Your task to perform on an android device: turn on data saver in the chrome app Image 0: 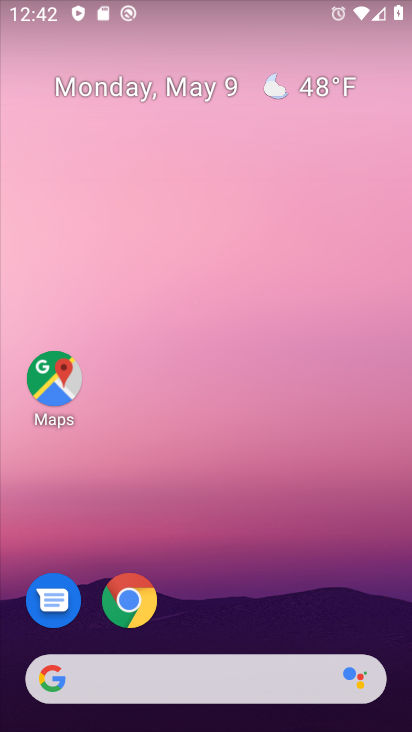
Step 0: click (411, 445)
Your task to perform on an android device: turn on data saver in the chrome app Image 1: 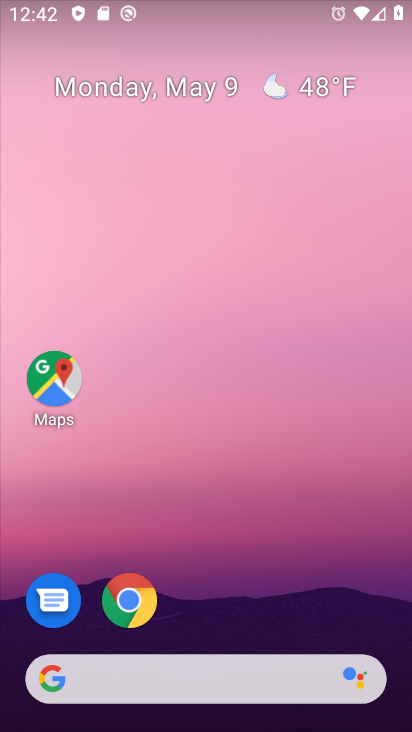
Step 1: click (120, 608)
Your task to perform on an android device: turn on data saver in the chrome app Image 2: 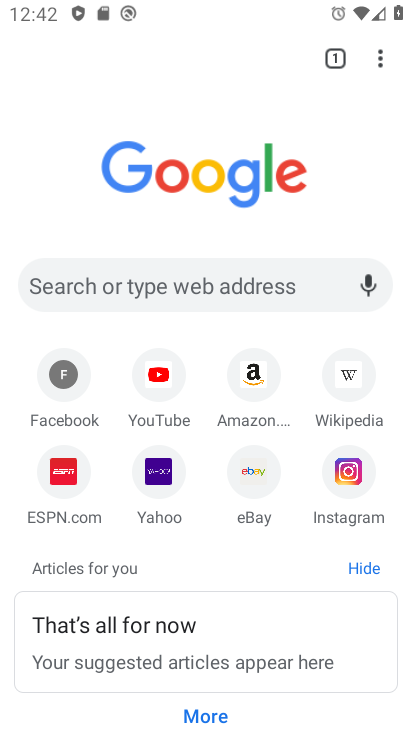
Step 2: click (385, 54)
Your task to perform on an android device: turn on data saver in the chrome app Image 3: 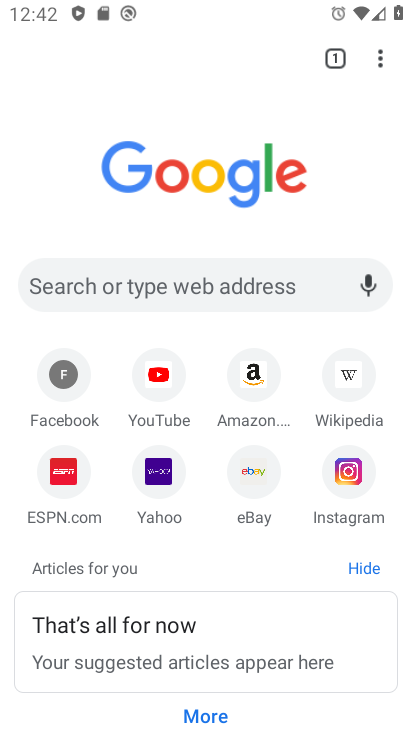
Step 3: click (376, 46)
Your task to perform on an android device: turn on data saver in the chrome app Image 4: 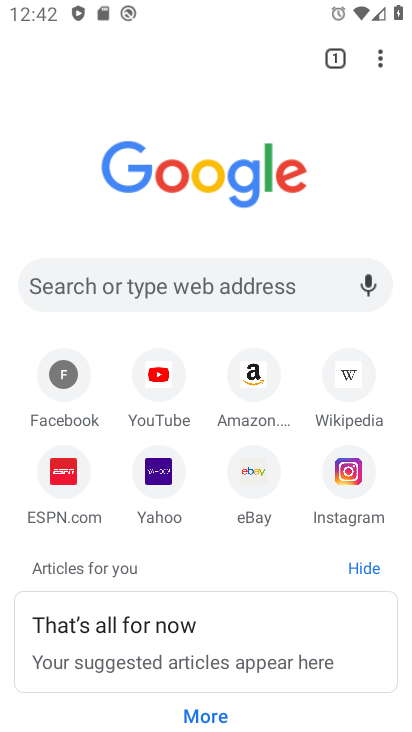
Step 4: click (383, 54)
Your task to perform on an android device: turn on data saver in the chrome app Image 5: 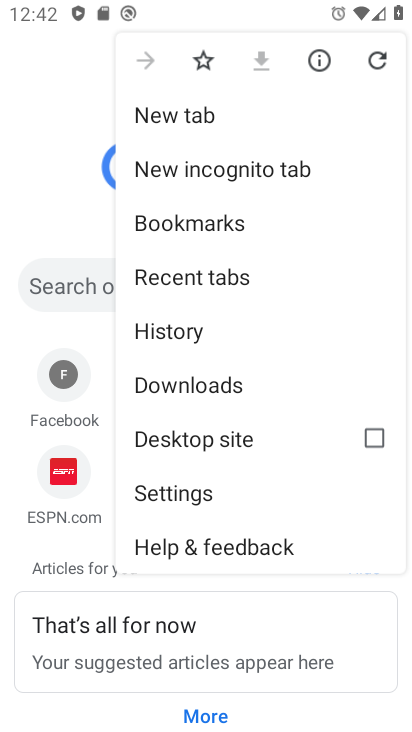
Step 5: click (205, 504)
Your task to perform on an android device: turn on data saver in the chrome app Image 6: 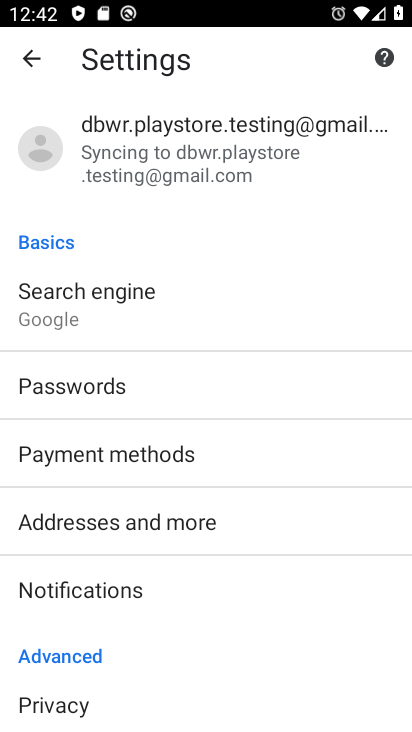
Step 6: drag from (169, 614) to (223, 419)
Your task to perform on an android device: turn on data saver in the chrome app Image 7: 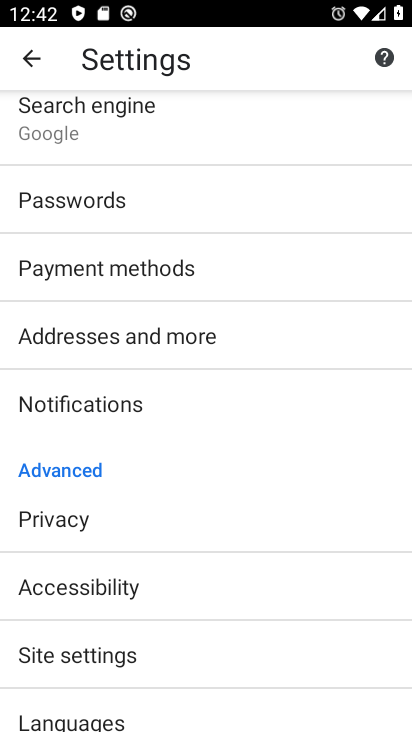
Step 7: drag from (205, 665) to (310, 214)
Your task to perform on an android device: turn on data saver in the chrome app Image 8: 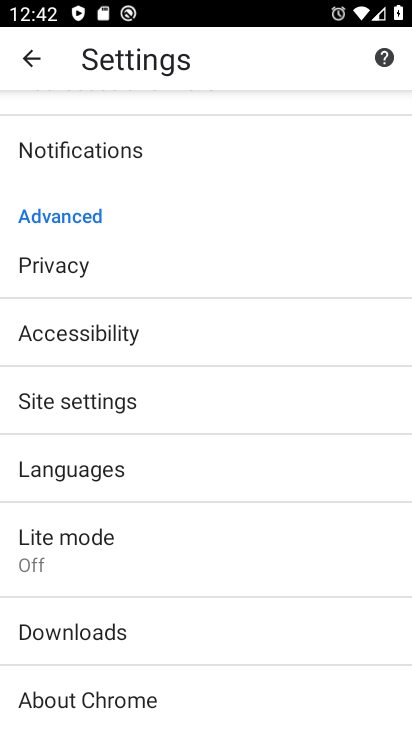
Step 8: drag from (101, 653) to (194, 215)
Your task to perform on an android device: turn on data saver in the chrome app Image 9: 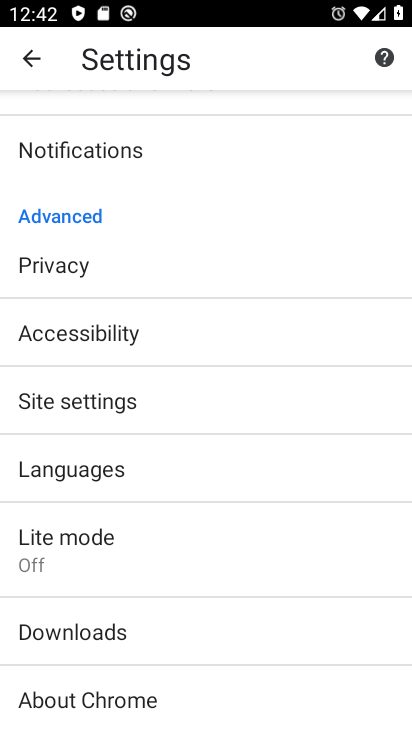
Step 9: drag from (201, 264) to (152, 571)
Your task to perform on an android device: turn on data saver in the chrome app Image 10: 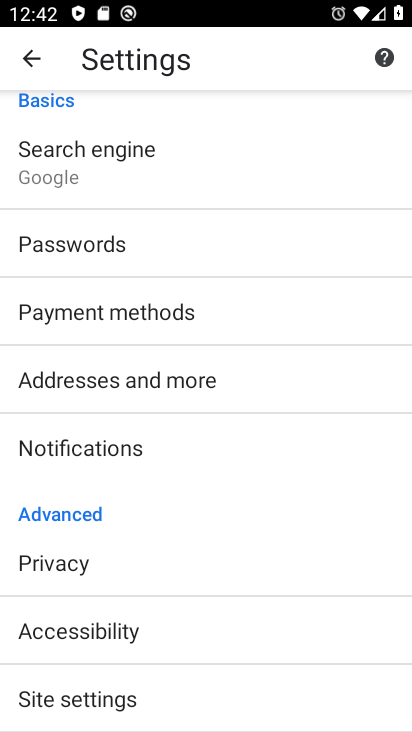
Step 10: drag from (236, 106) to (161, 566)
Your task to perform on an android device: turn on data saver in the chrome app Image 11: 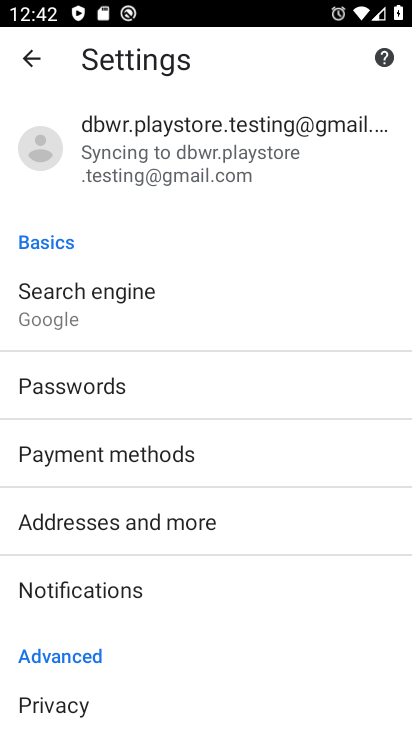
Step 11: click (30, 60)
Your task to perform on an android device: turn on data saver in the chrome app Image 12: 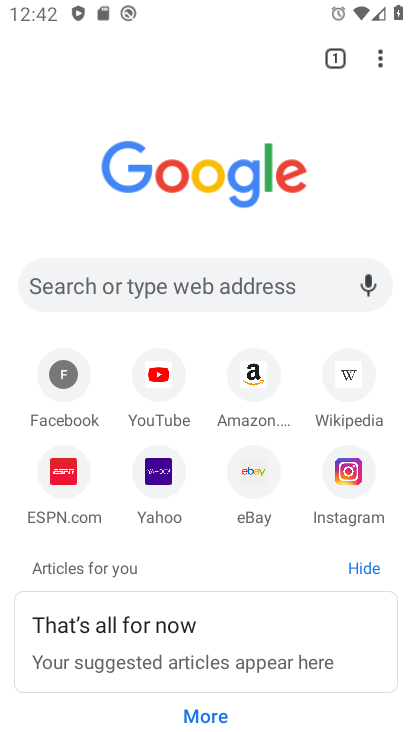
Step 12: click (375, 45)
Your task to perform on an android device: turn on data saver in the chrome app Image 13: 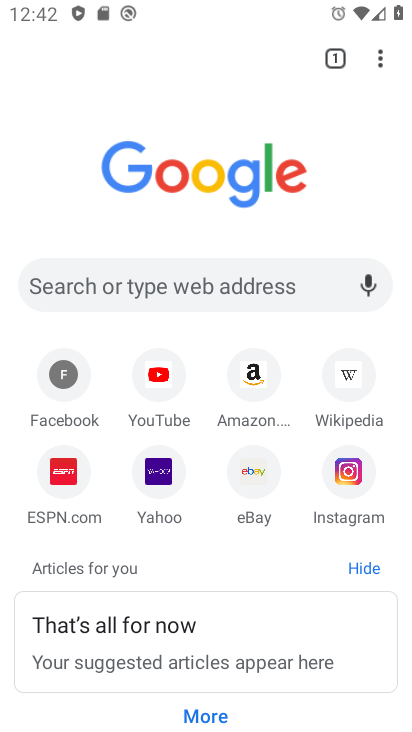
Step 13: task complete